Your task to perform on an android device: What's the weather going to be this weekend? Image 0: 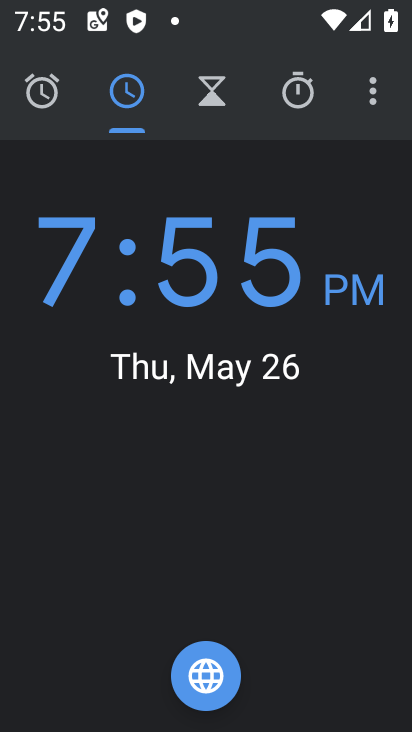
Step 0: press home button
Your task to perform on an android device: What's the weather going to be this weekend? Image 1: 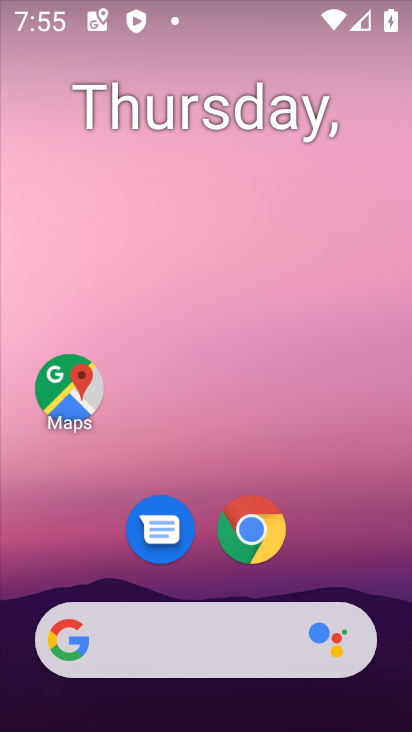
Step 1: drag from (202, 723) to (216, 179)
Your task to perform on an android device: What's the weather going to be this weekend? Image 2: 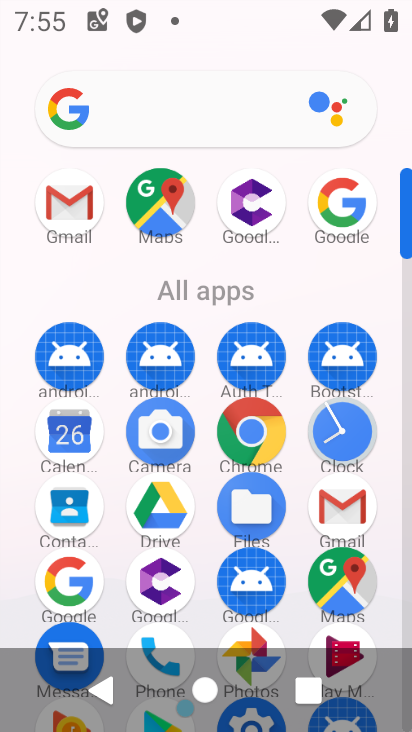
Step 2: click (67, 594)
Your task to perform on an android device: What's the weather going to be this weekend? Image 3: 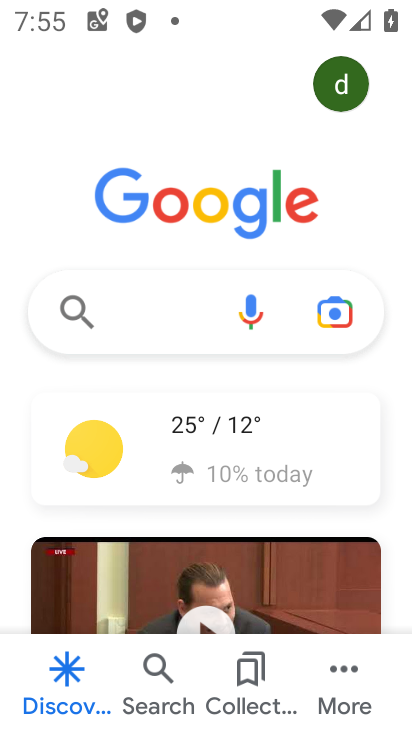
Step 3: click (199, 451)
Your task to perform on an android device: What's the weather going to be this weekend? Image 4: 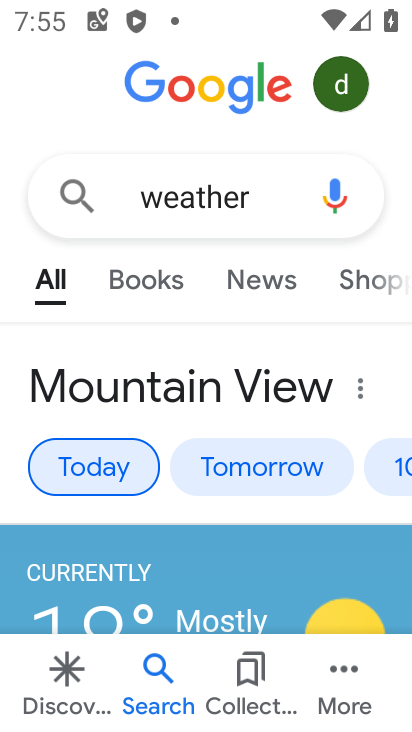
Step 4: click (83, 463)
Your task to perform on an android device: What's the weather going to be this weekend? Image 5: 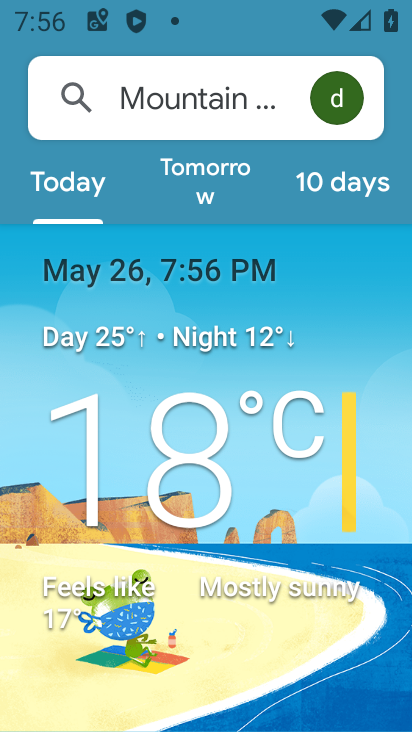
Step 5: click (349, 187)
Your task to perform on an android device: What's the weather going to be this weekend? Image 6: 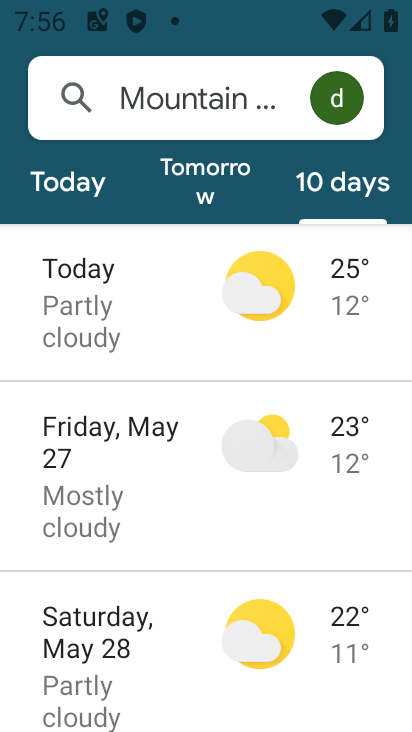
Step 6: click (116, 622)
Your task to perform on an android device: What's the weather going to be this weekend? Image 7: 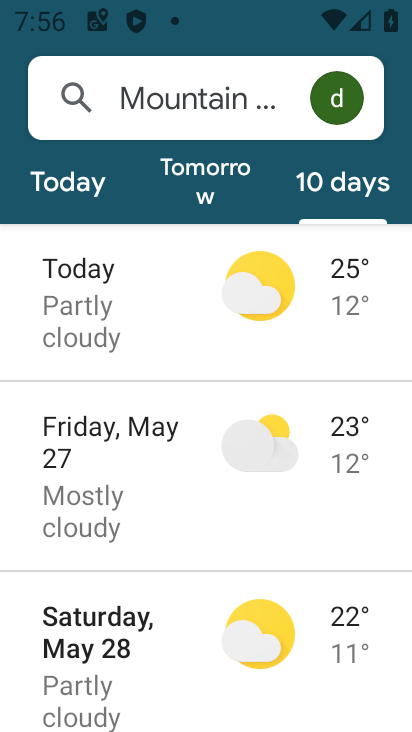
Step 7: task complete